Your task to perform on an android device: Open the phone app and click the voicemail tab. Image 0: 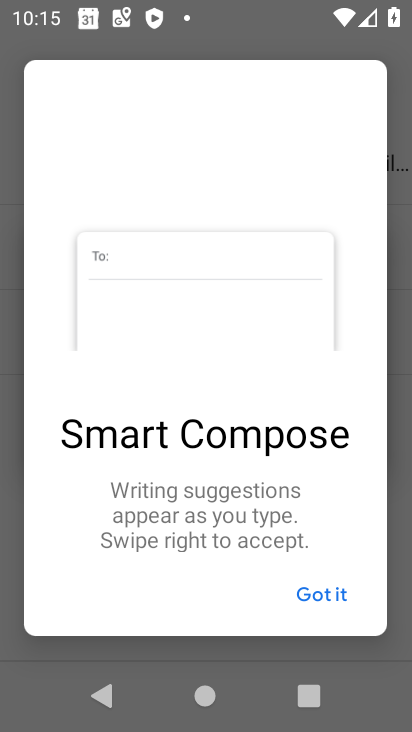
Step 0: press home button
Your task to perform on an android device: Open the phone app and click the voicemail tab. Image 1: 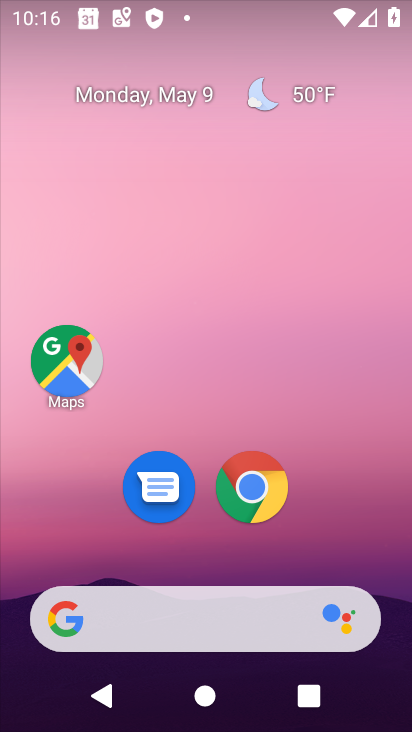
Step 1: drag from (57, 588) to (352, 159)
Your task to perform on an android device: Open the phone app and click the voicemail tab. Image 2: 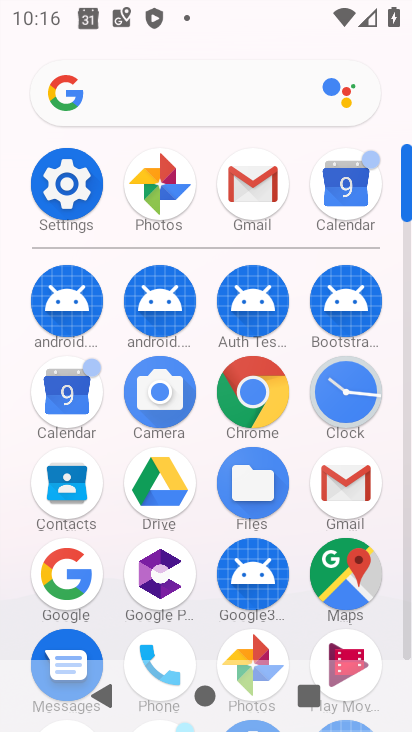
Step 2: click (182, 641)
Your task to perform on an android device: Open the phone app and click the voicemail tab. Image 3: 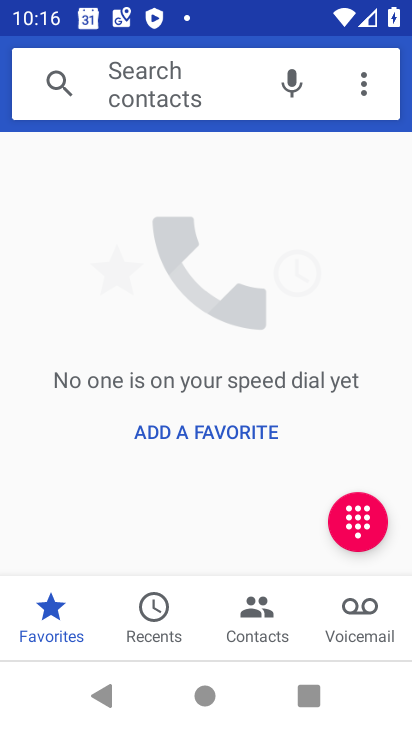
Step 3: click (344, 608)
Your task to perform on an android device: Open the phone app and click the voicemail tab. Image 4: 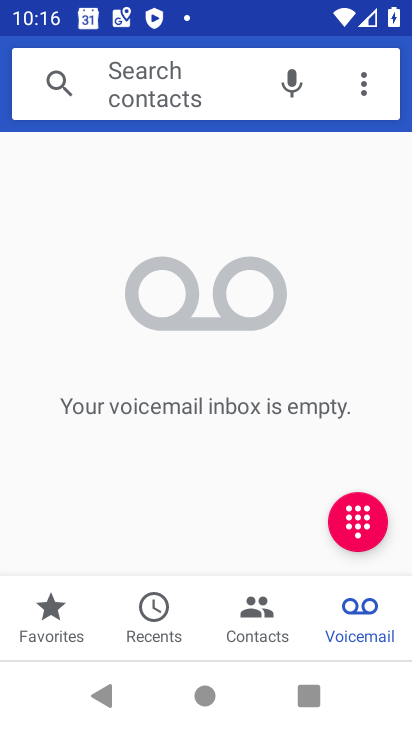
Step 4: task complete